Your task to perform on an android device: Open Youtube and go to the subscriptions tab Image 0: 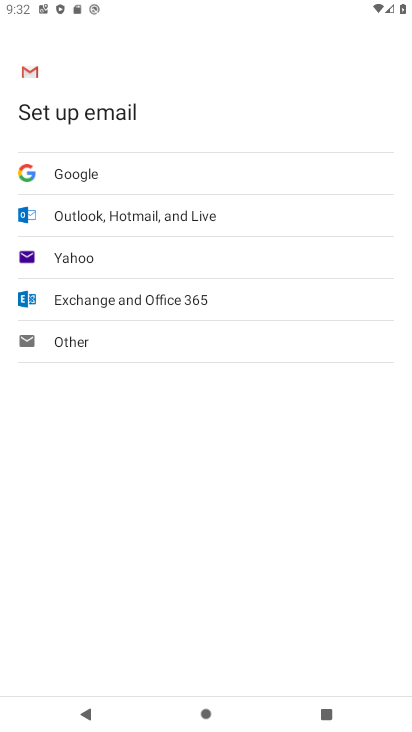
Step 0: press back button
Your task to perform on an android device: Open Youtube and go to the subscriptions tab Image 1: 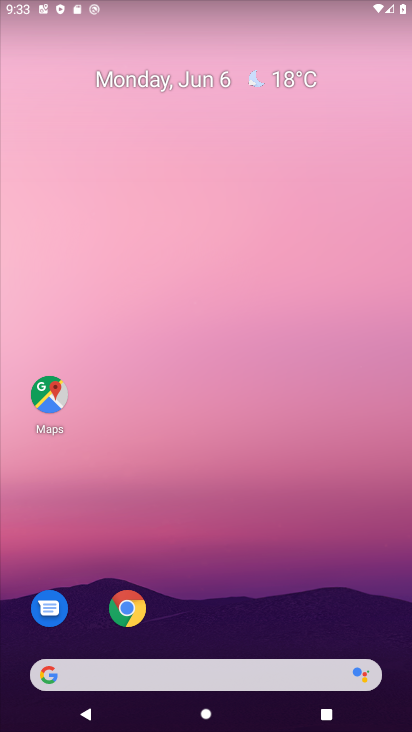
Step 1: drag from (272, 602) to (197, 112)
Your task to perform on an android device: Open Youtube and go to the subscriptions tab Image 2: 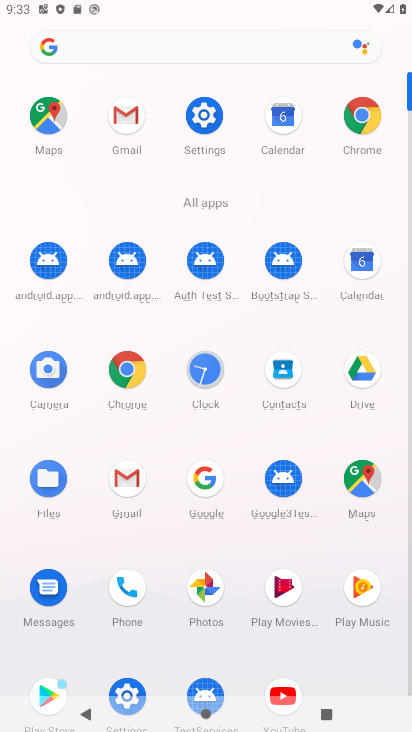
Step 2: drag from (237, 445) to (252, 224)
Your task to perform on an android device: Open Youtube and go to the subscriptions tab Image 3: 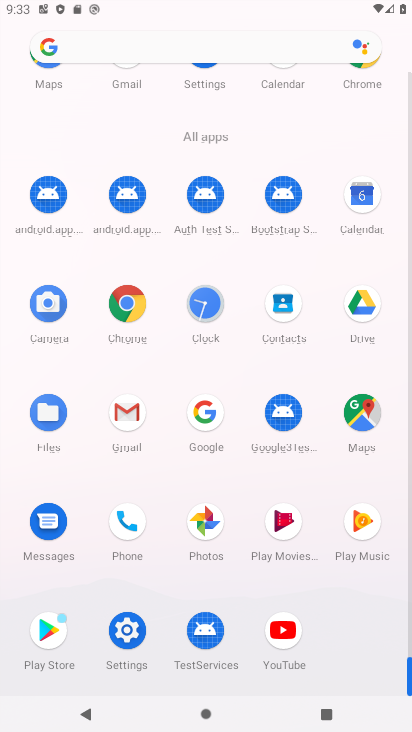
Step 3: click (284, 627)
Your task to perform on an android device: Open Youtube and go to the subscriptions tab Image 4: 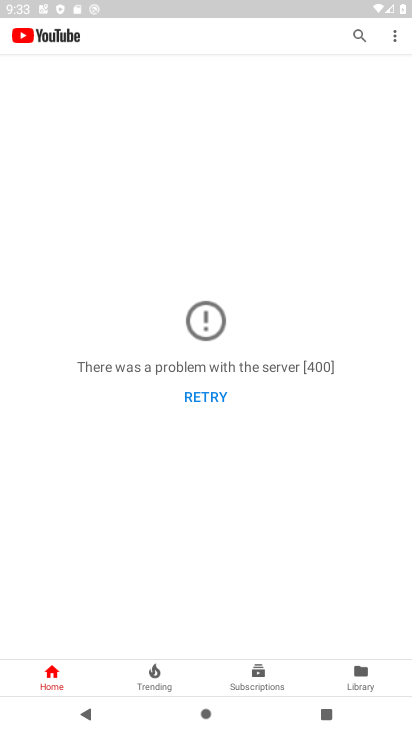
Step 4: click (255, 672)
Your task to perform on an android device: Open Youtube and go to the subscriptions tab Image 5: 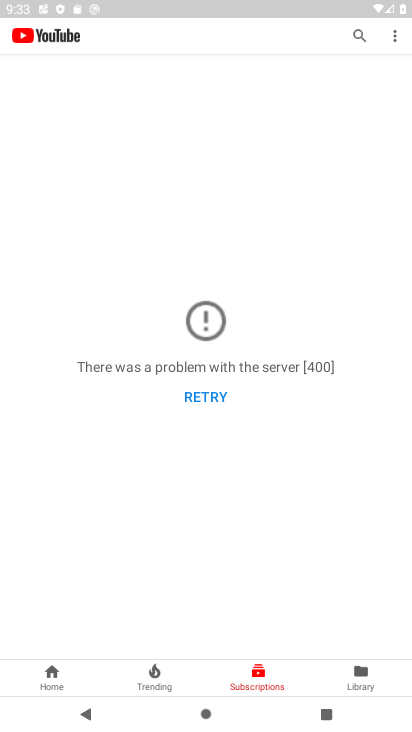
Step 5: task complete